Your task to perform on an android device: Open Google Chrome Image 0: 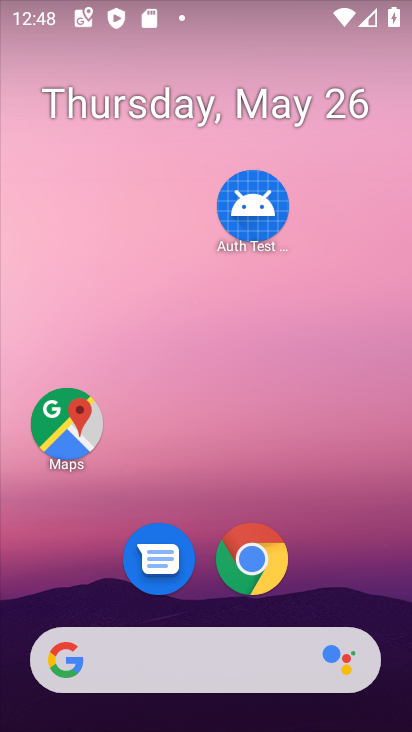
Step 0: click (264, 563)
Your task to perform on an android device: Open Google Chrome Image 1: 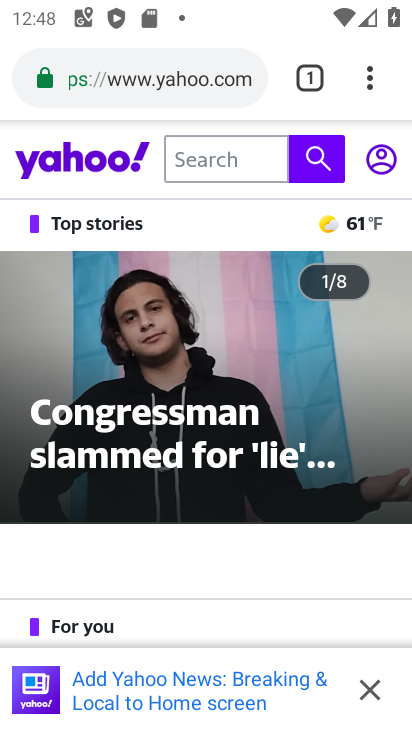
Step 1: task complete